Your task to perform on an android device: see sites visited before in the chrome app Image 0: 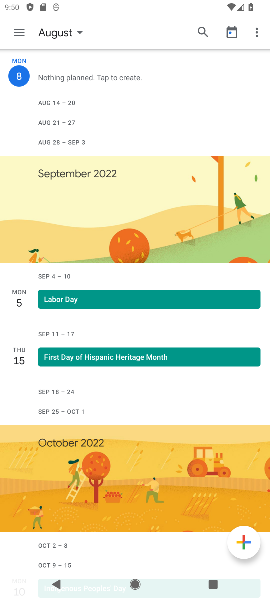
Step 0: press home button
Your task to perform on an android device: see sites visited before in the chrome app Image 1: 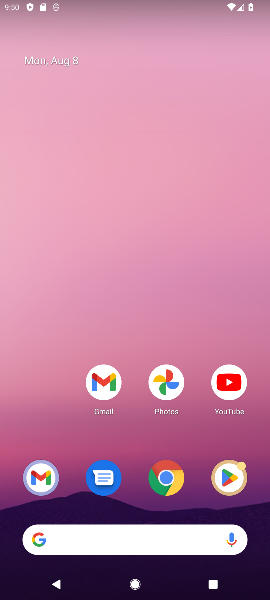
Step 1: click (154, 480)
Your task to perform on an android device: see sites visited before in the chrome app Image 2: 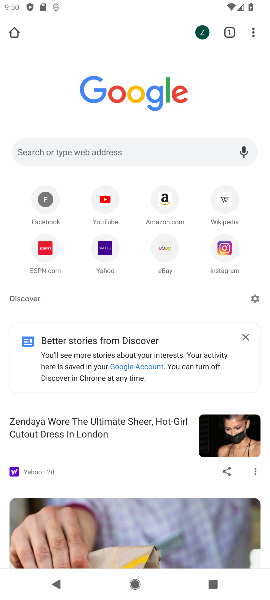
Step 2: click (230, 50)
Your task to perform on an android device: see sites visited before in the chrome app Image 3: 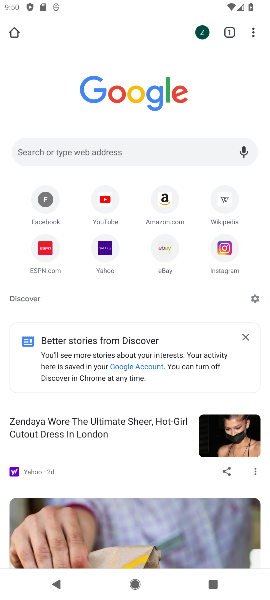
Step 3: click (228, 30)
Your task to perform on an android device: see sites visited before in the chrome app Image 4: 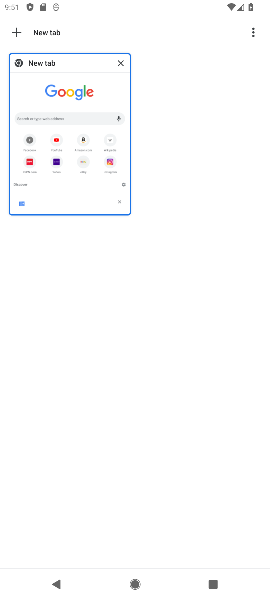
Step 4: task complete